Your task to perform on an android device: What's on my calendar today? Image 0: 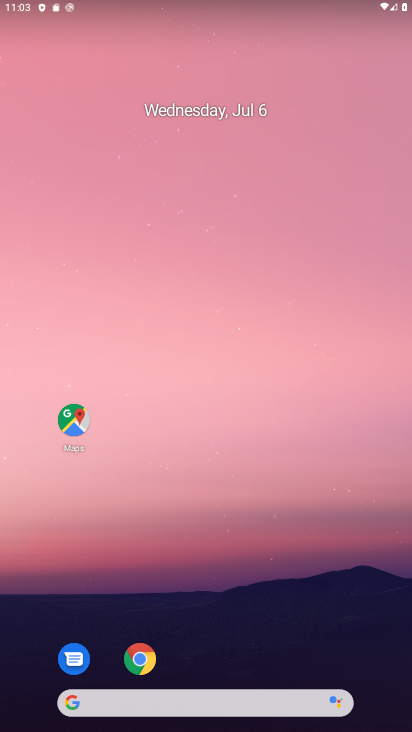
Step 0: drag from (268, 609) to (299, 3)
Your task to perform on an android device: What's on my calendar today? Image 1: 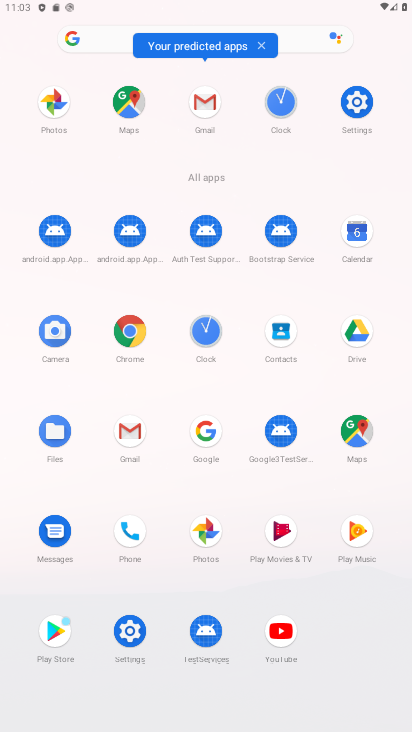
Step 1: click (356, 231)
Your task to perform on an android device: What's on my calendar today? Image 2: 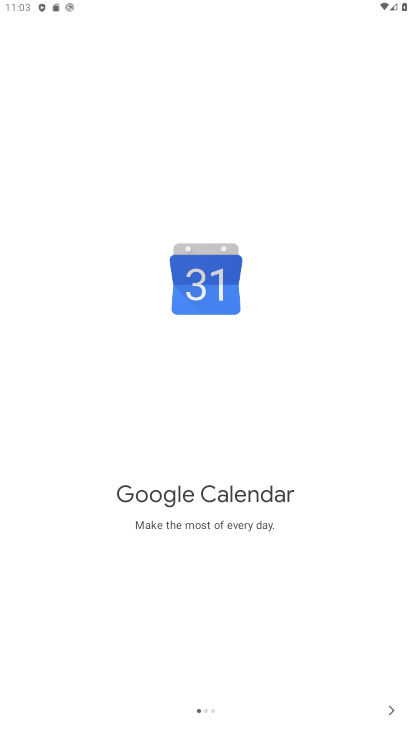
Step 2: click (395, 710)
Your task to perform on an android device: What's on my calendar today? Image 3: 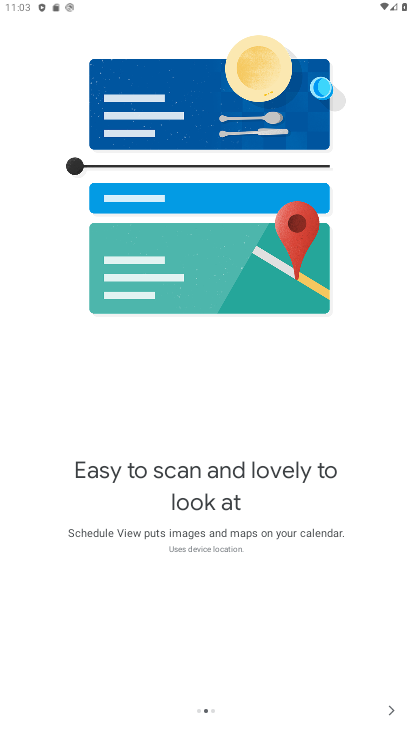
Step 3: click (395, 710)
Your task to perform on an android device: What's on my calendar today? Image 4: 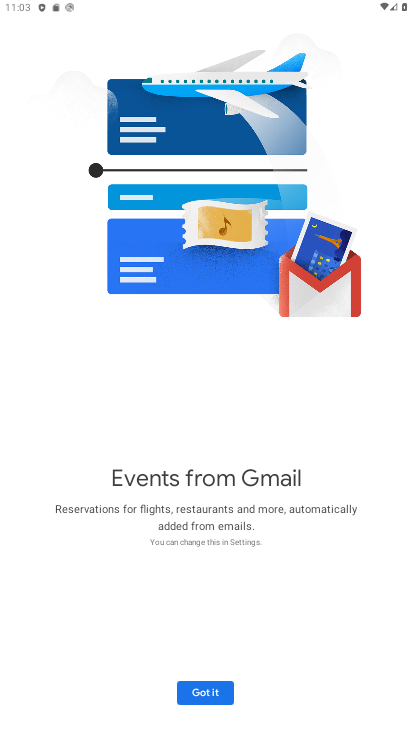
Step 4: click (222, 685)
Your task to perform on an android device: What's on my calendar today? Image 5: 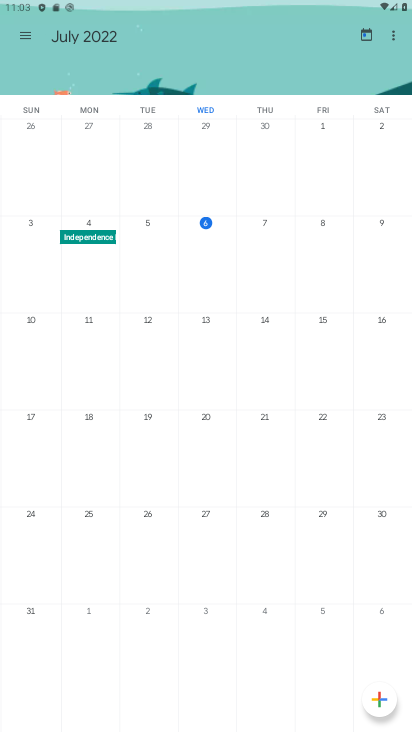
Step 5: click (204, 221)
Your task to perform on an android device: What's on my calendar today? Image 6: 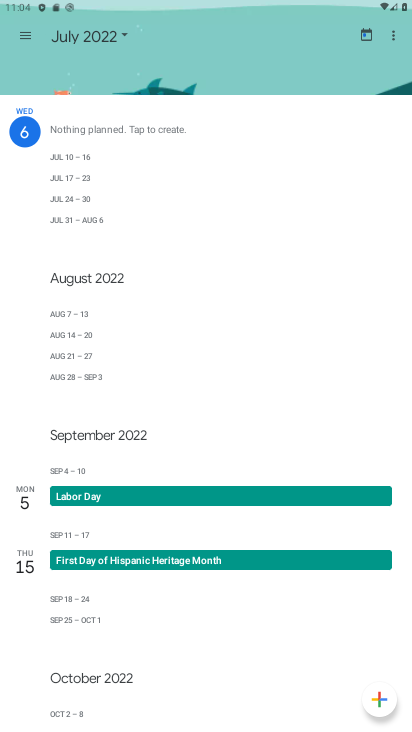
Step 6: task complete